Your task to perform on an android device: turn notification dots on Image 0: 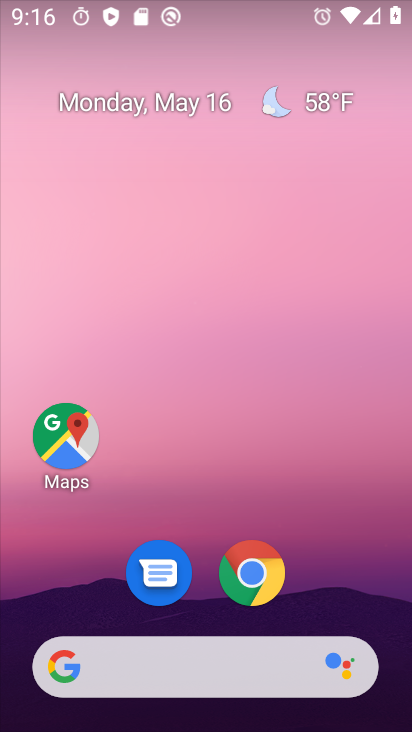
Step 0: drag from (368, 667) to (247, 214)
Your task to perform on an android device: turn notification dots on Image 1: 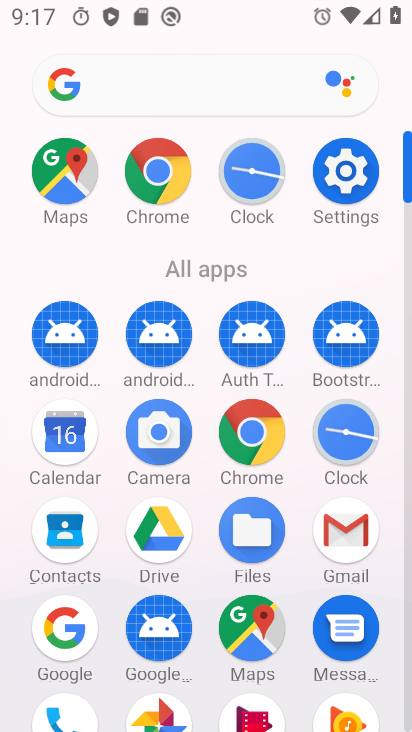
Step 1: click (346, 182)
Your task to perform on an android device: turn notification dots on Image 2: 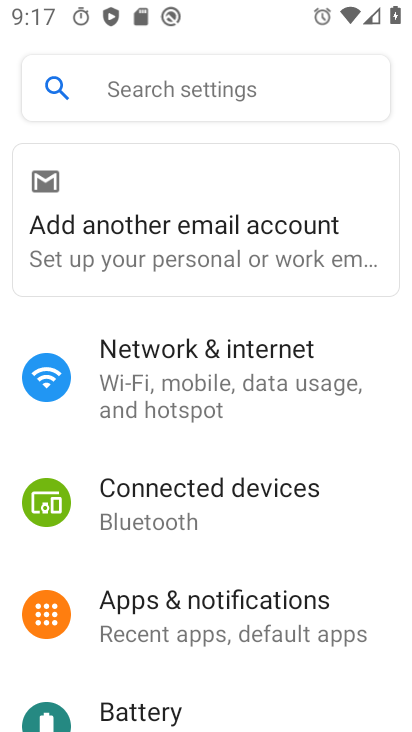
Step 2: click (216, 602)
Your task to perform on an android device: turn notification dots on Image 3: 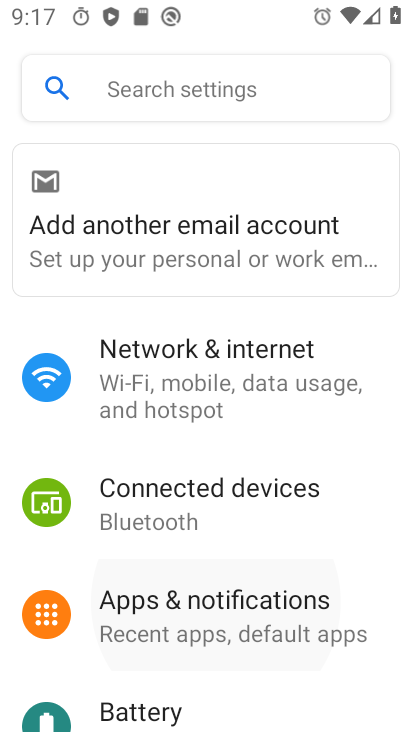
Step 3: click (216, 602)
Your task to perform on an android device: turn notification dots on Image 4: 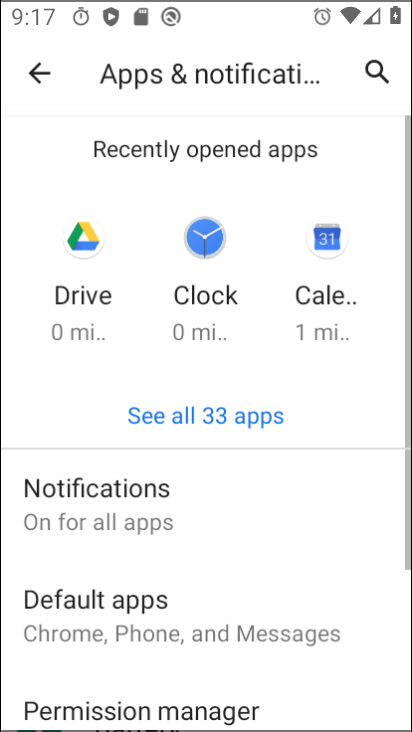
Step 4: click (220, 603)
Your task to perform on an android device: turn notification dots on Image 5: 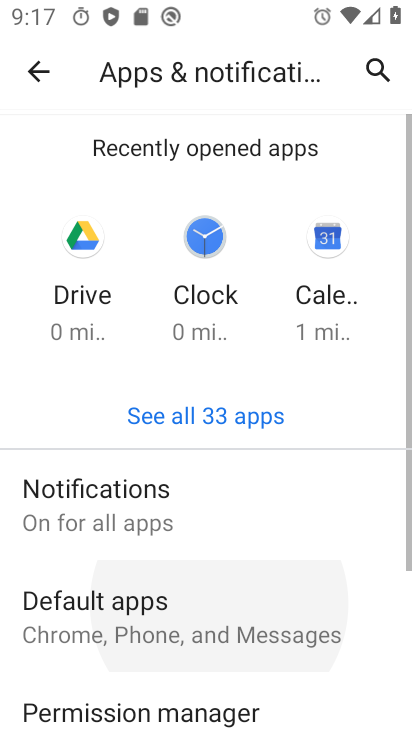
Step 5: click (220, 603)
Your task to perform on an android device: turn notification dots on Image 6: 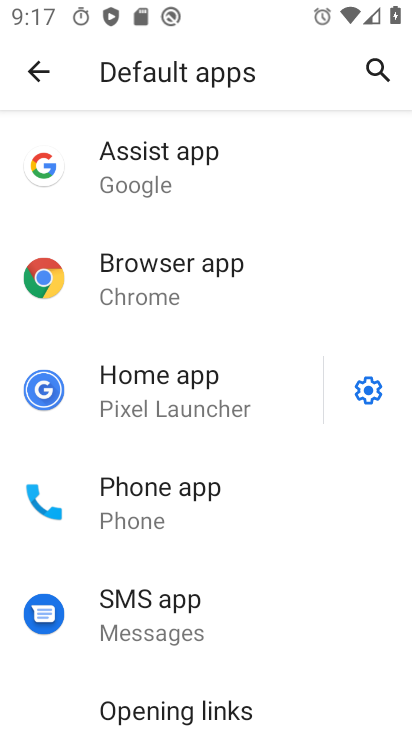
Step 6: click (33, 68)
Your task to perform on an android device: turn notification dots on Image 7: 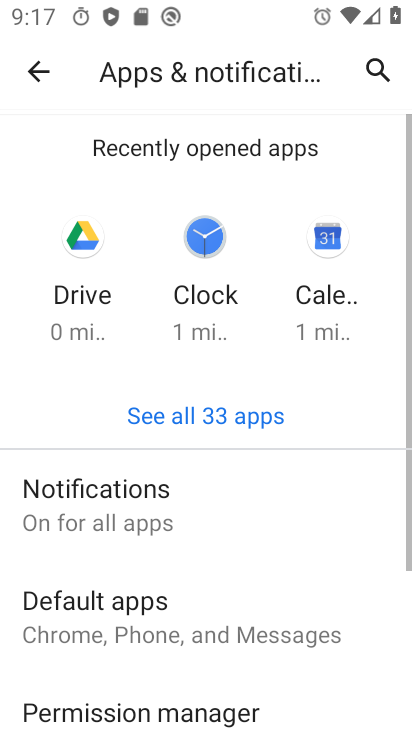
Step 7: drag from (186, 570) to (208, 197)
Your task to perform on an android device: turn notification dots on Image 8: 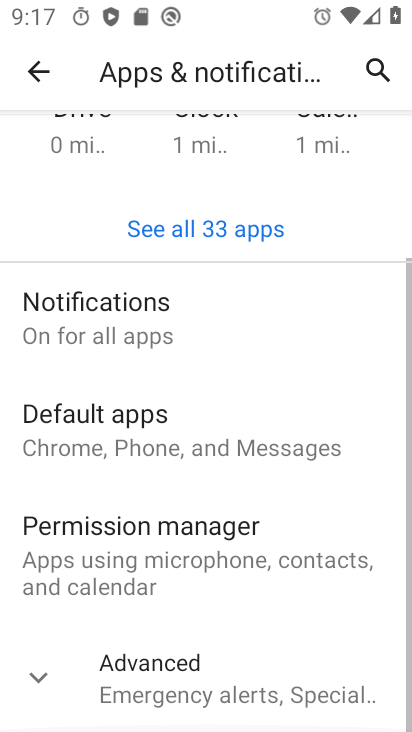
Step 8: drag from (229, 418) to (314, 114)
Your task to perform on an android device: turn notification dots on Image 9: 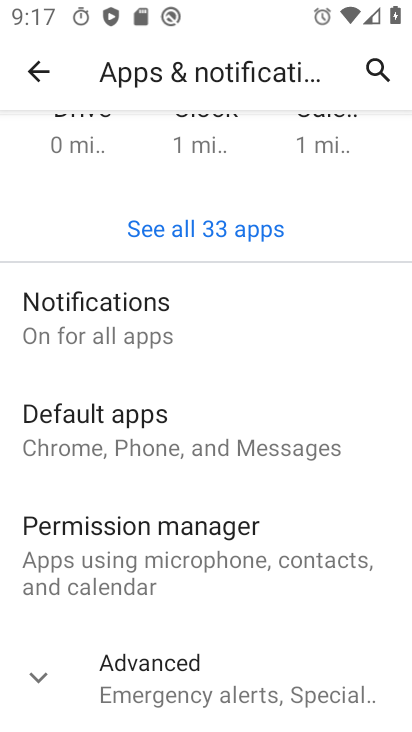
Step 9: click (73, 305)
Your task to perform on an android device: turn notification dots on Image 10: 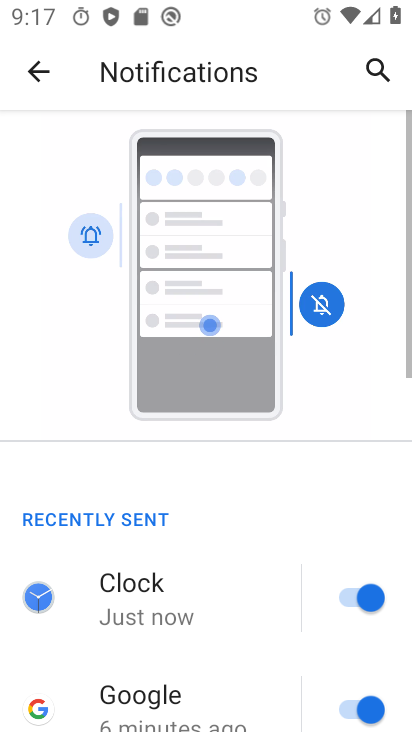
Step 10: drag from (203, 637) to (205, 246)
Your task to perform on an android device: turn notification dots on Image 11: 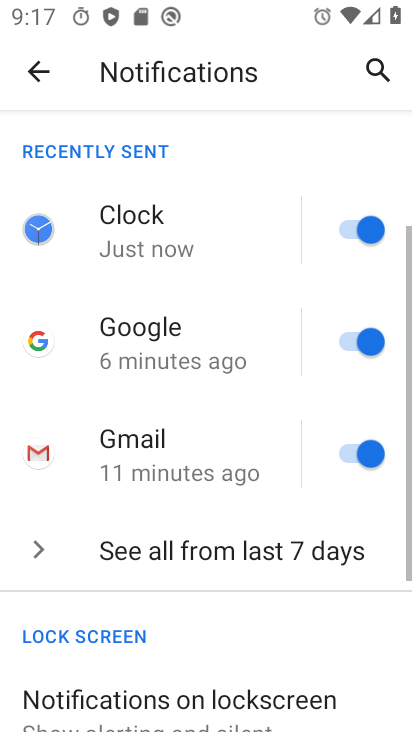
Step 11: drag from (220, 476) to (219, 12)
Your task to perform on an android device: turn notification dots on Image 12: 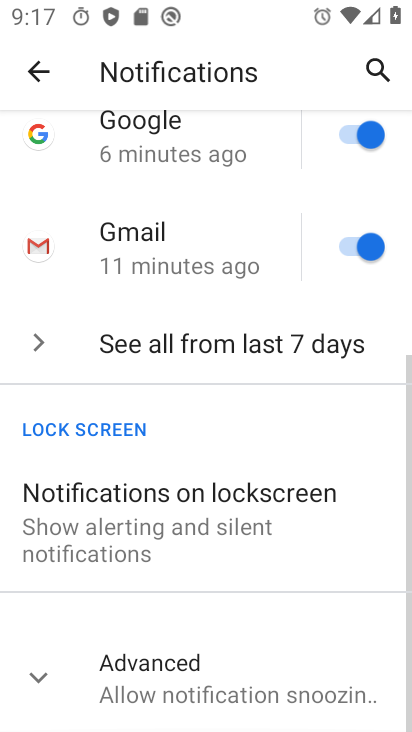
Step 12: click (308, 92)
Your task to perform on an android device: turn notification dots on Image 13: 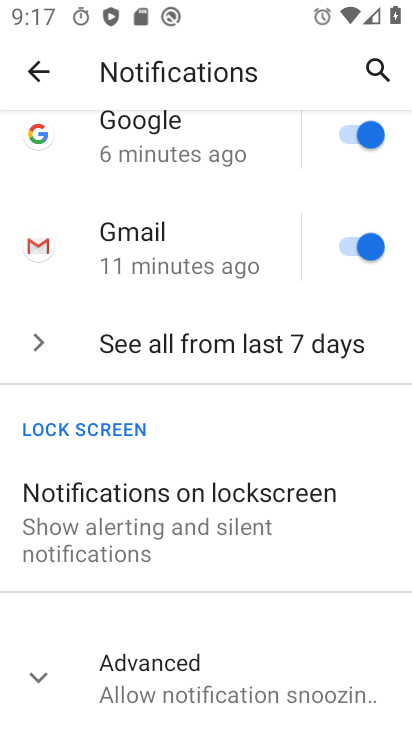
Step 13: click (169, 678)
Your task to perform on an android device: turn notification dots on Image 14: 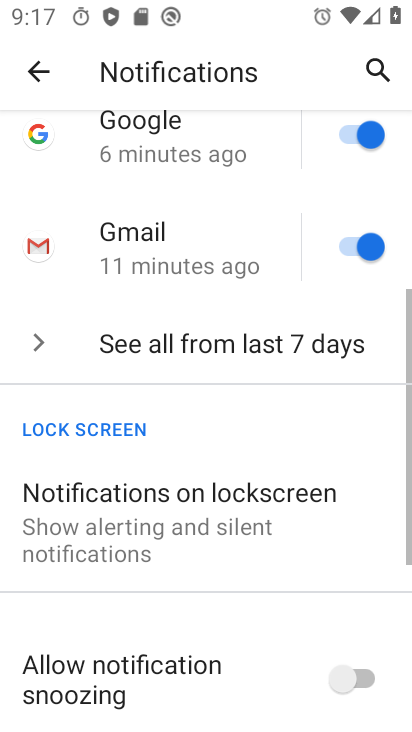
Step 14: drag from (232, 606) to (304, 185)
Your task to perform on an android device: turn notification dots on Image 15: 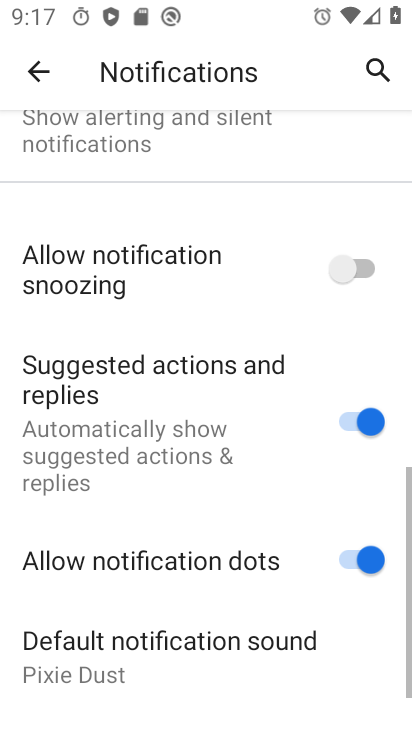
Step 15: drag from (248, 463) to (225, 16)
Your task to perform on an android device: turn notification dots on Image 16: 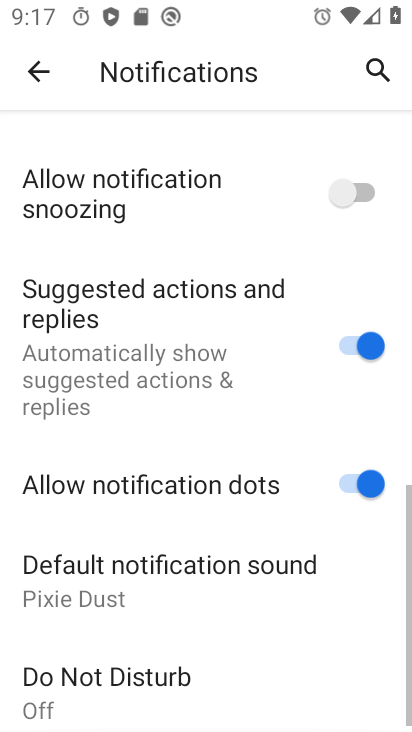
Step 16: click (378, 562)
Your task to perform on an android device: turn notification dots on Image 17: 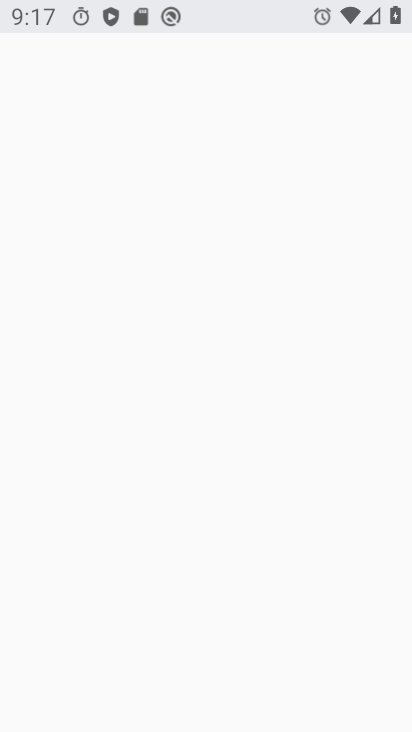
Step 17: click (375, 477)
Your task to perform on an android device: turn notification dots on Image 18: 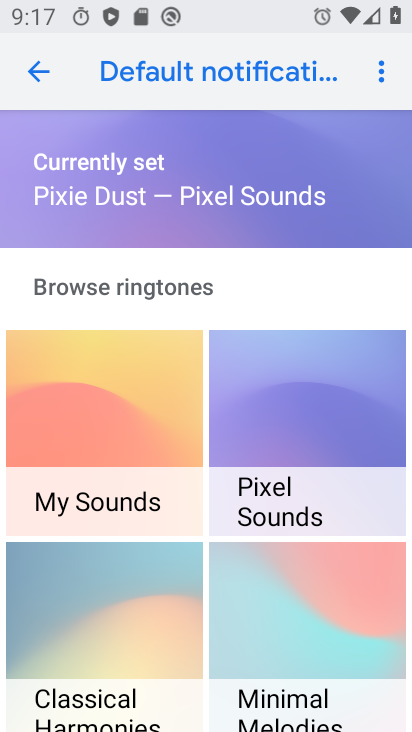
Step 18: click (35, 65)
Your task to perform on an android device: turn notification dots on Image 19: 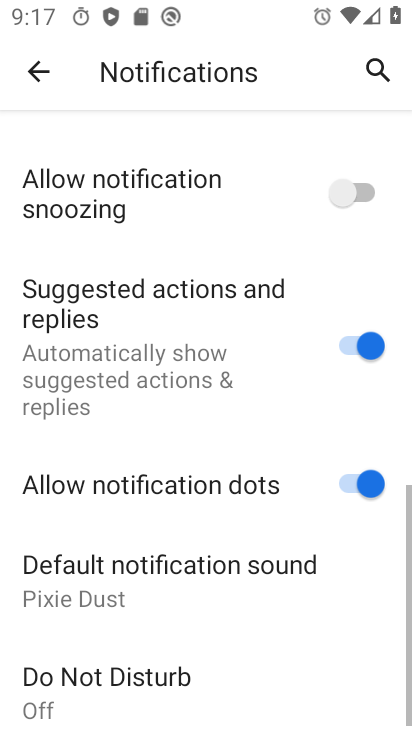
Step 19: click (367, 474)
Your task to perform on an android device: turn notification dots on Image 20: 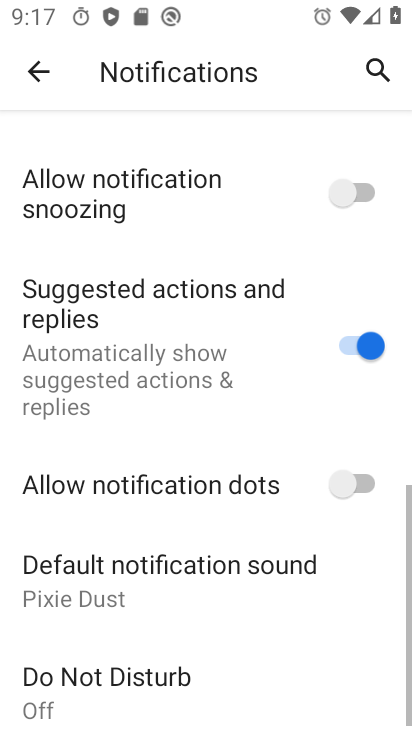
Step 20: task complete